Your task to perform on an android device: change keyboard looks Image 0: 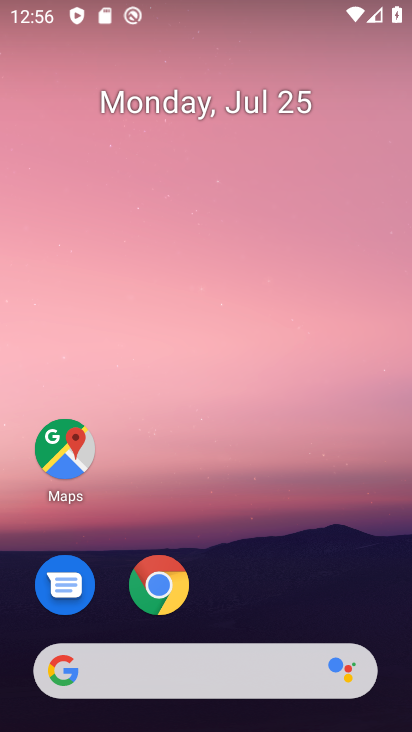
Step 0: drag from (199, 653) to (129, 183)
Your task to perform on an android device: change keyboard looks Image 1: 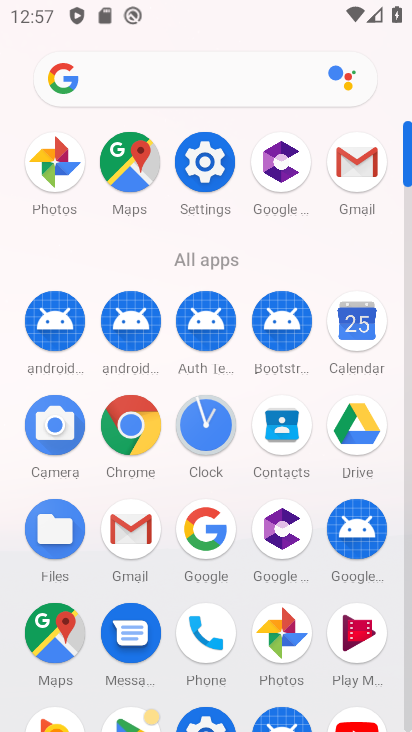
Step 1: click (190, 179)
Your task to perform on an android device: change keyboard looks Image 2: 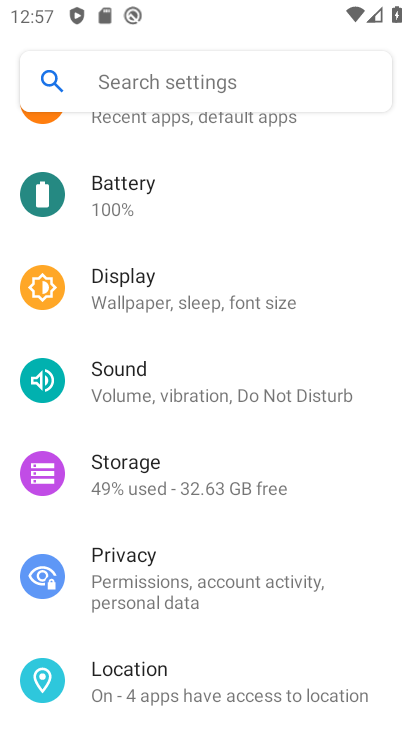
Step 2: drag from (186, 637) to (140, 133)
Your task to perform on an android device: change keyboard looks Image 3: 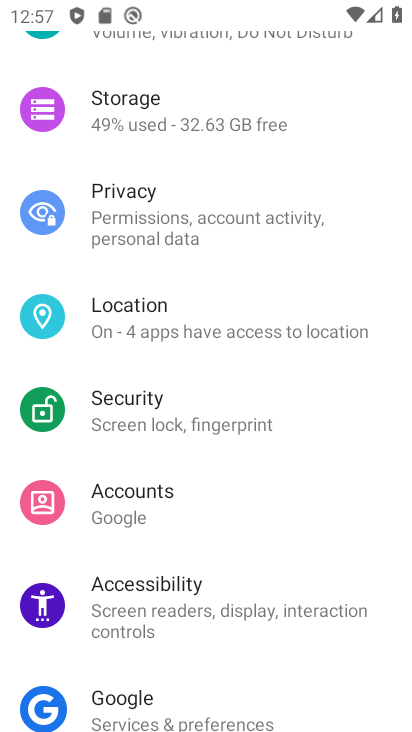
Step 3: drag from (179, 406) to (167, 63)
Your task to perform on an android device: change keyboard looks Image 4: 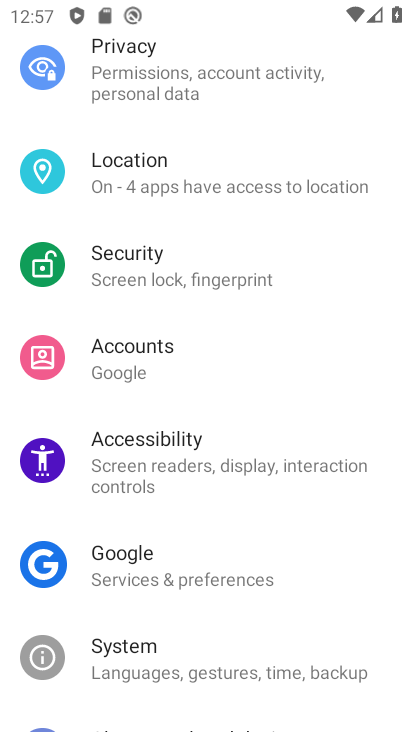
Step 4: drag from (186, 670) to (179, 100)
Your task to perform on an android device: change keyboard looks Image 5: 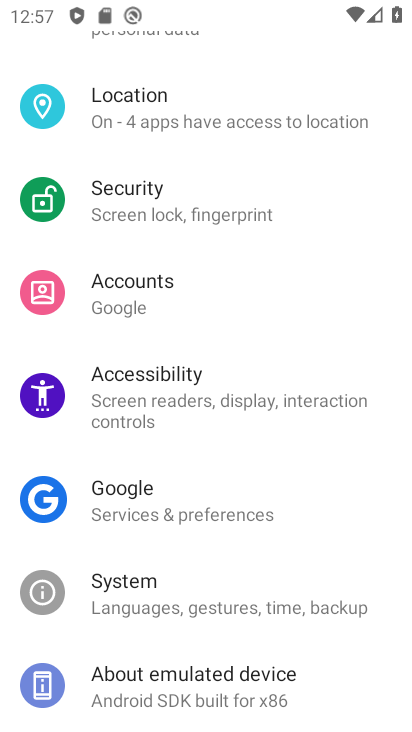
Step 5: click (138, 612)
Your task to perform on an android device: change keyboard looks Image 6: 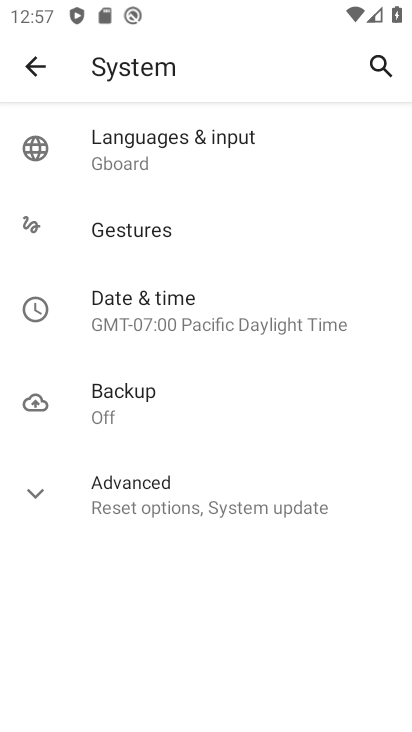
Step 6: click (124, 160)
Your task to perform on an android device: change keyboard looks Image 7: 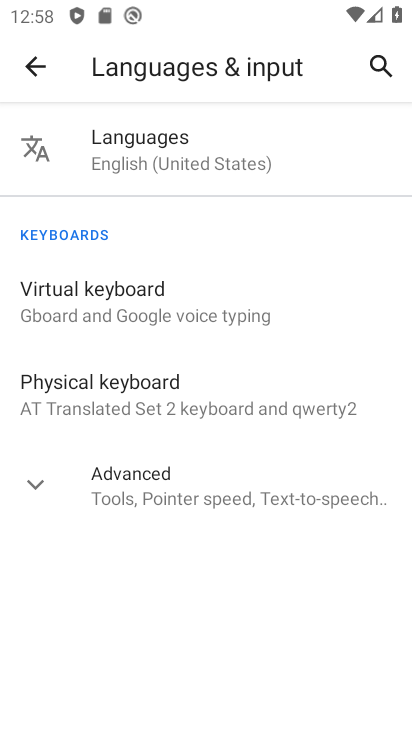
Step 7: click (134, 304)
Your task to perform on an android device: change keyboard looks Image 8: 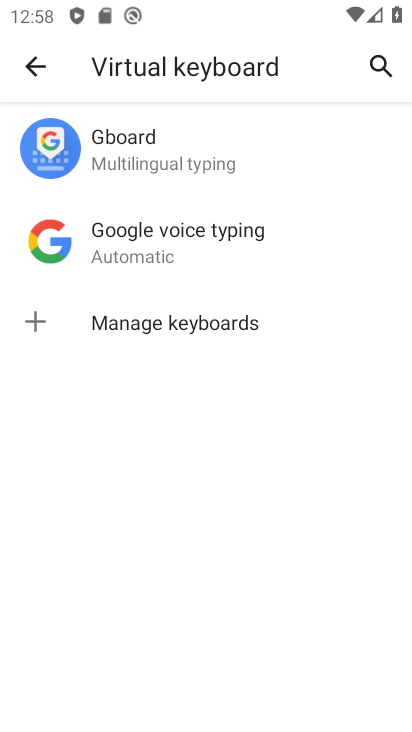
Step 8: click (184, 162)
Your task to perform on an android device: change keyboard looks Image 9: 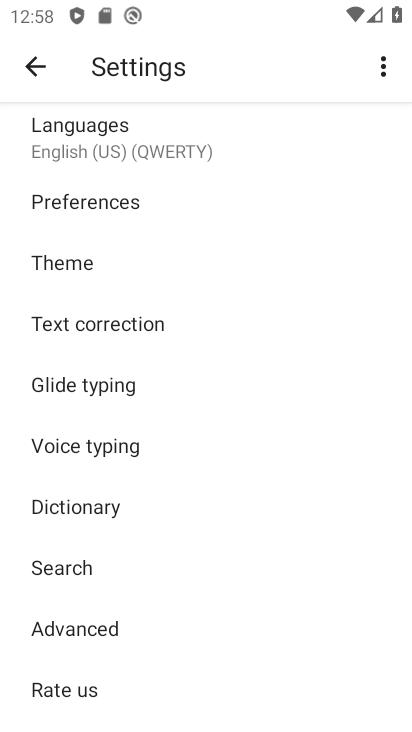
Step 9: click (79, 256)
Your task to perform on an android device: change keyboard looks Image 10: 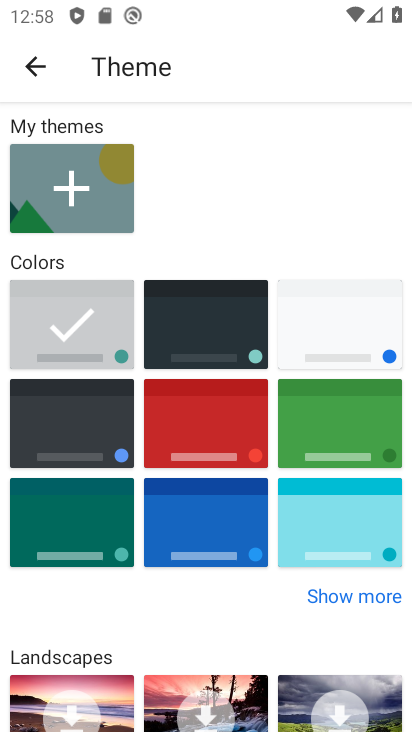
Step 10: click (196, 518)
Your task to perform on an android device: change keyboard looks Image 11: 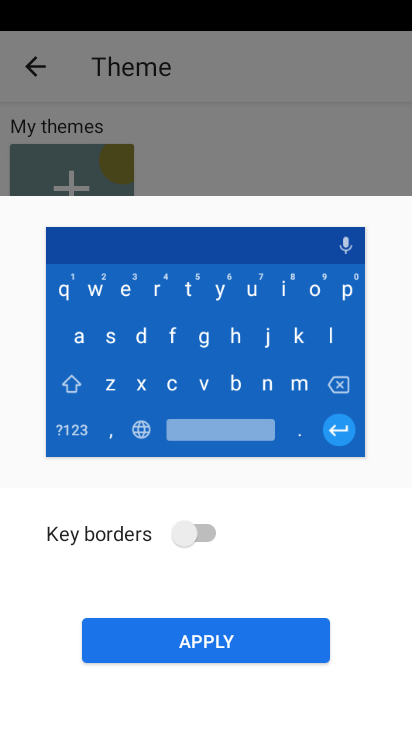
Step 11: click (239, 643)
Your task to perform on an android device: change keyboard looks Image 12: 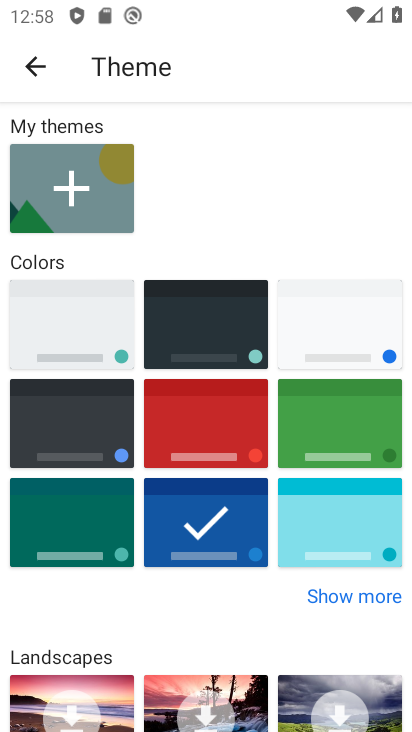
Step 12: task complete